Your task to perform on an android device: Open Google Chrome and click the shortcut for Amazon.com Image 0: 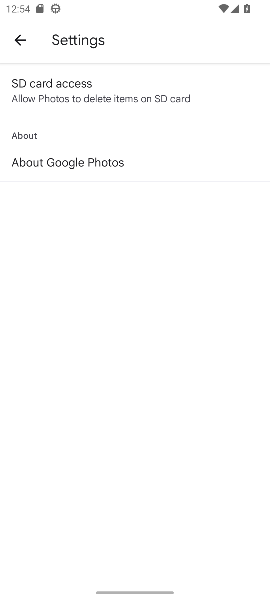
Step 0: click (115, 553)
Your task to perform on an android device: Open Google Chrome and click the shortcut for Amazon.com Image 1: 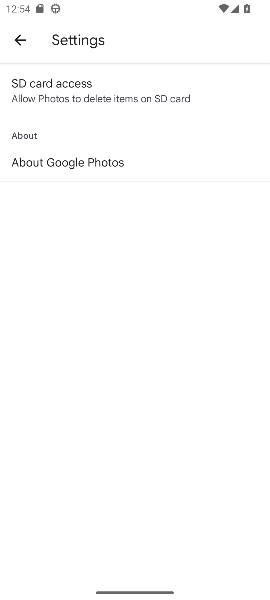
Step 1: press home button
Your task to perform on an android device: Open Google Chrome and click the shortcut for Amazon.com Image 2: 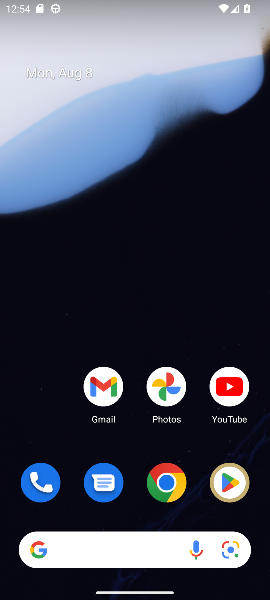
Step 2: click (176, 485)
Your task to perform on an android device: Open Google Chrome and click the shortcut for Amazon.com Image 3: 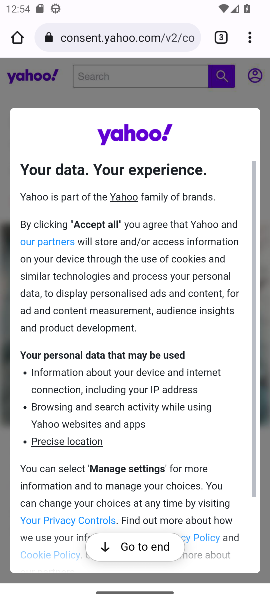
Step 3: click (250, 32)
Your task to perform on an android device: Open Google Chrome and click the shortcut for Amazon.com Image 4: 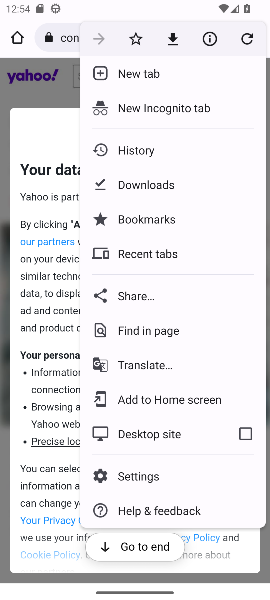
Step 4: click (183, 67)
Your task to perform on an android device: Open Google Chrome and click the shortcut for Amazon.com Image 5: 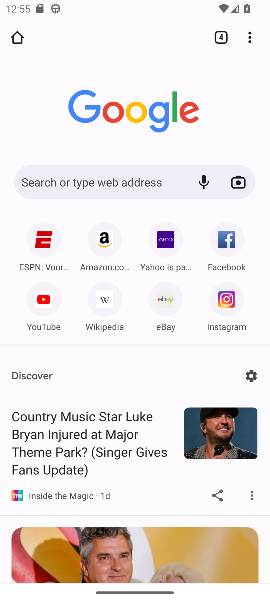
Step 5: click (107, 236)
Your task to perform on an android device: Open Google Chrome and click the shortcut for Amazon.com Image 6: 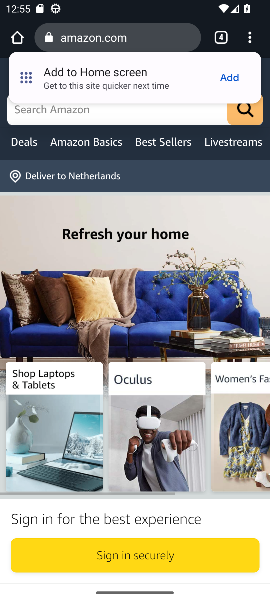
Step 6: task complete